Your task to perform on an android device: change the clock display to digital Image 0: 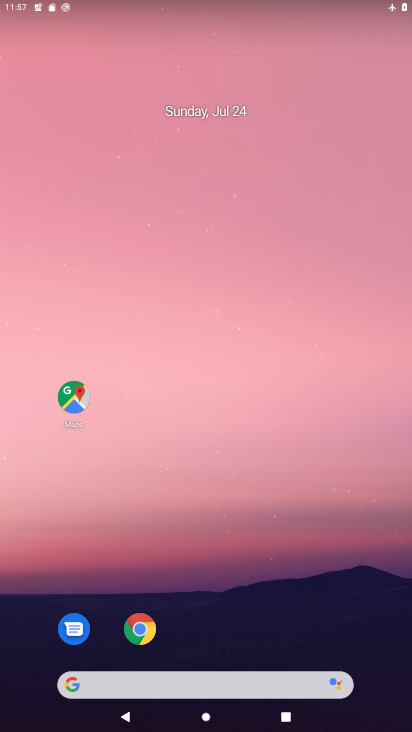
Step 0: drag from (227, 599) to (253, 12)
Your task to perform on an android device: change the clock display to digital Image 1: 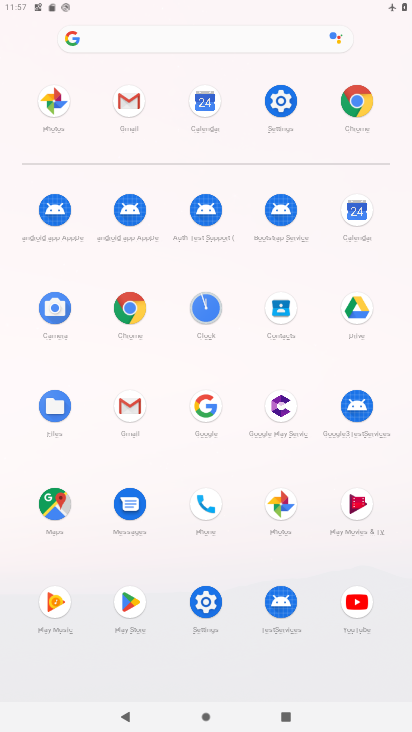
Step 1: click (214, 318)
Your task to perform on an android device: change the clock display to digital Image 2: 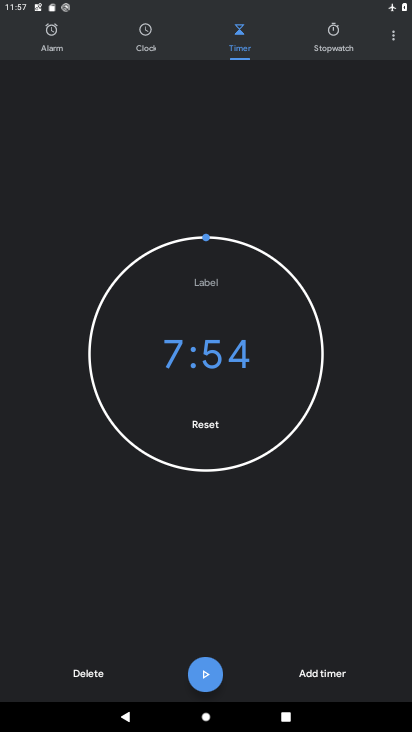
Step 2: click (389, 39)
Your task to perform on an android device: change the clock display to digital Image 3: 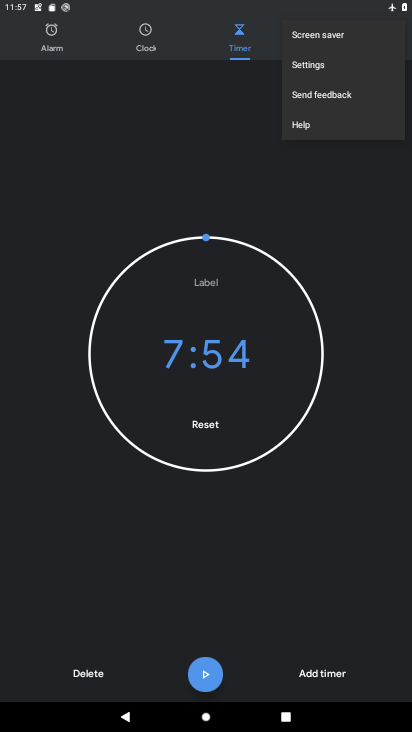
Step 3: click (316, 68)
Your task to perform on an android device: change the clock display to digital Image 4: 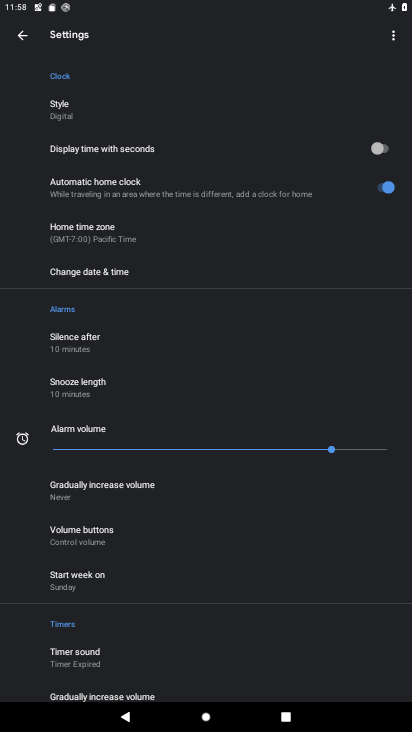
Step 4: click (65, 113)
Your task to perform on an android device: change the clock display to digital Image 5: 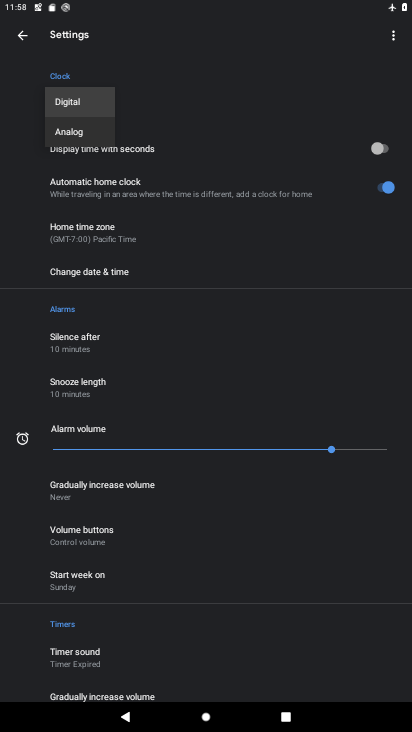
Step 5: task complete